Your task to perform on an android device: open sync settings in chrome Image 0: 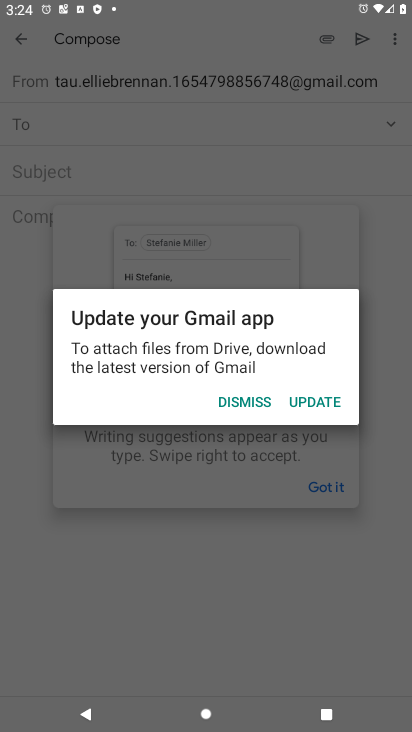
Step 0: press home button
Your task to perform on an android device: open sync settings in chrome Image 1: 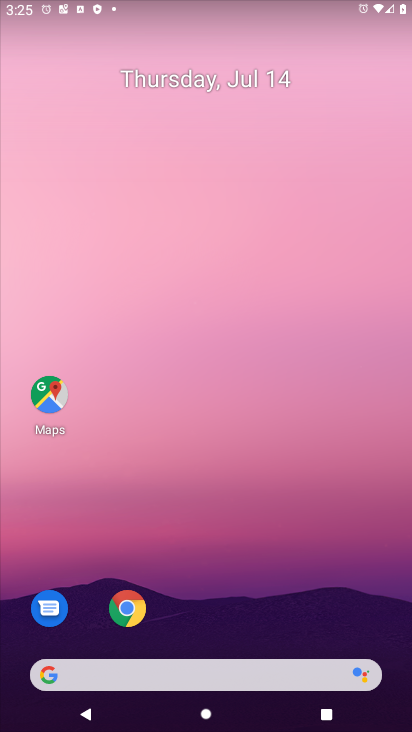
Step 1: click (128, 606)
Your task to perform on an android device: open sync settings in chrome Image 2: 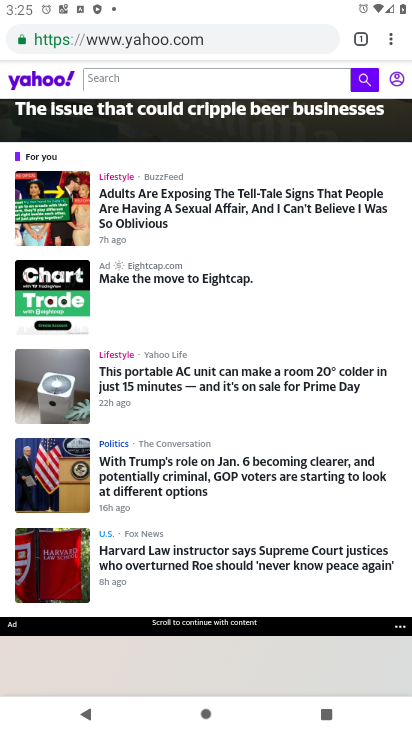
Step 2: click (393, 38)
Your task to perform on an android device: open sync settings in chrome Image 3: 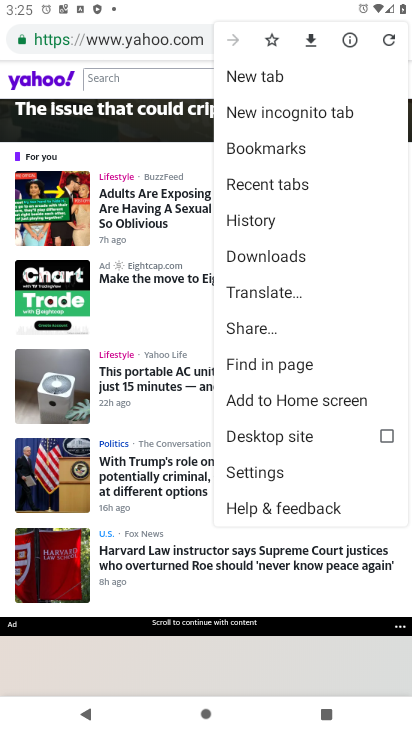
Step 3: click (260, 473)
Your task to perform on an android device: open sync settings in chrome Image 4: 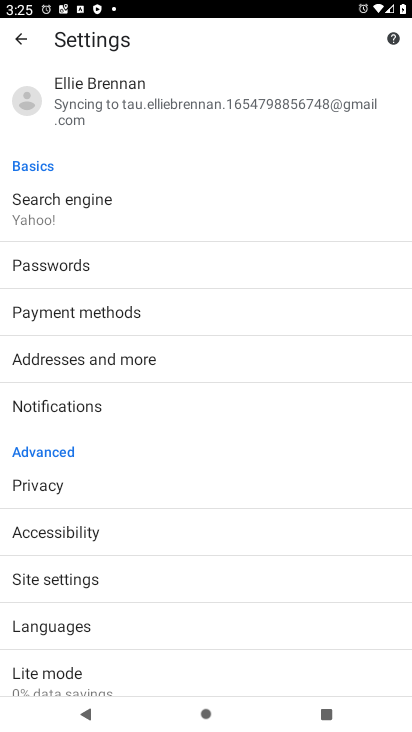
Step 4: click (101, 90)
Your task to perform on an android device: open sync settings in chrome Image 5: 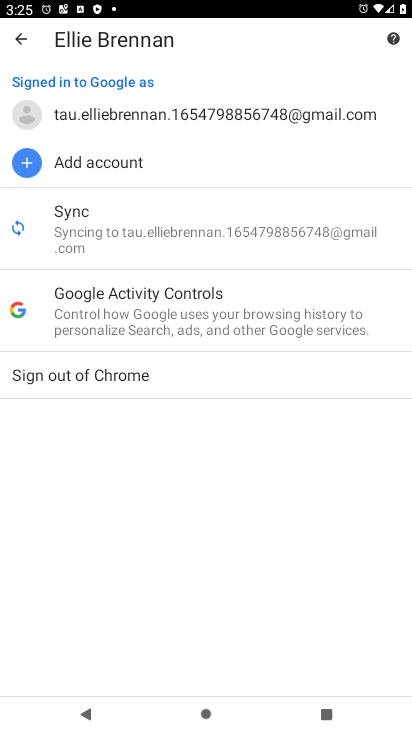
Step 5: click (77, 222)
Your task to perform on an android device: open sync settings in chrome Image 6: 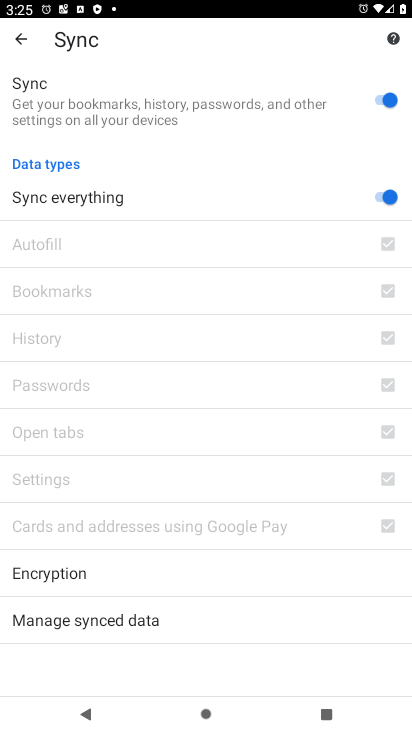
Step 6: task complete